Your task to perform on an android device: show emergency info Image 0: 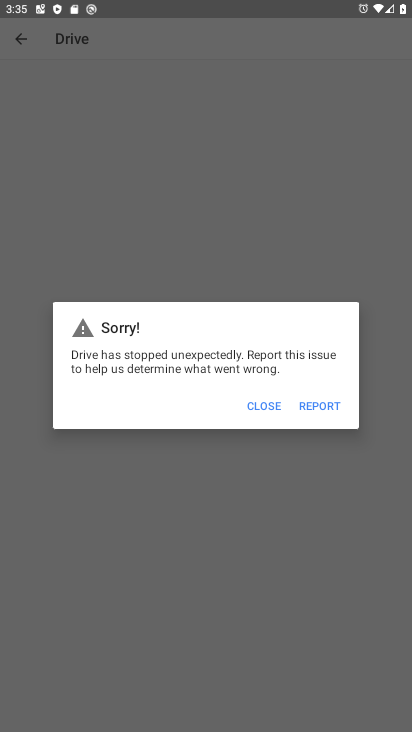
Step 0: press home button
Your task to perform on an android device: show emergency info Image 1: 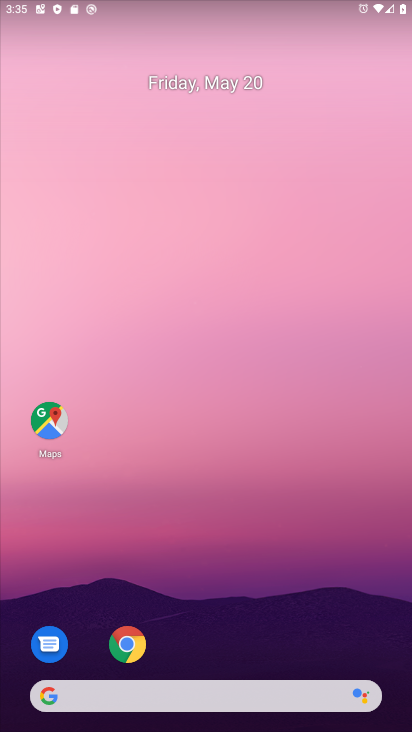
Step 1: drag from (257, 641) to (187, 63)
Your task to perform on an android device: show emergency info Image 2: 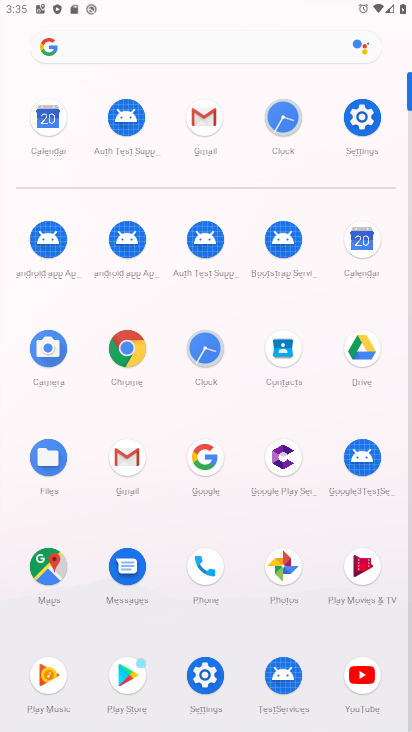
Step 2: click (345, 147)
Your task to perform on an android device: show emergency info Image 3: 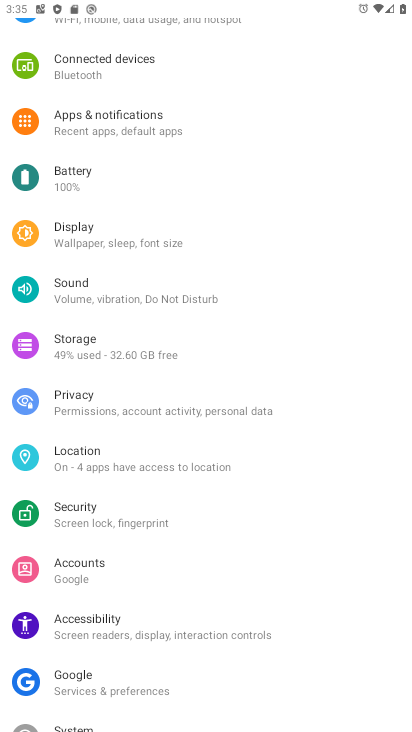
Step 3: drag from (173, 645) to (161, 166)
Your task to perform on an android device: show emergency info Image 4: 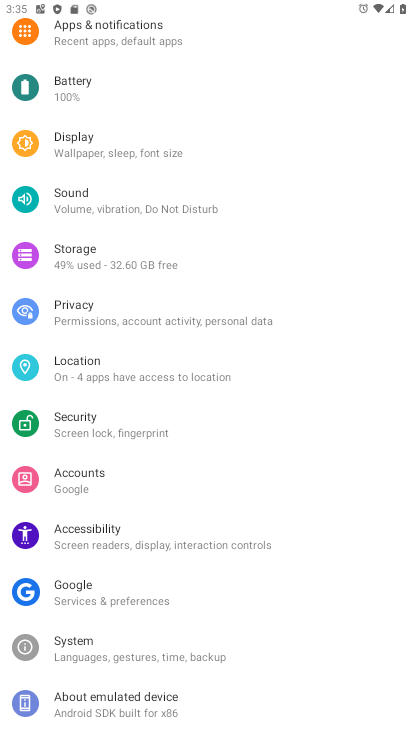
Step 4: click (173, 718)
Your task to perform on an android device: show emergency info Image 5: 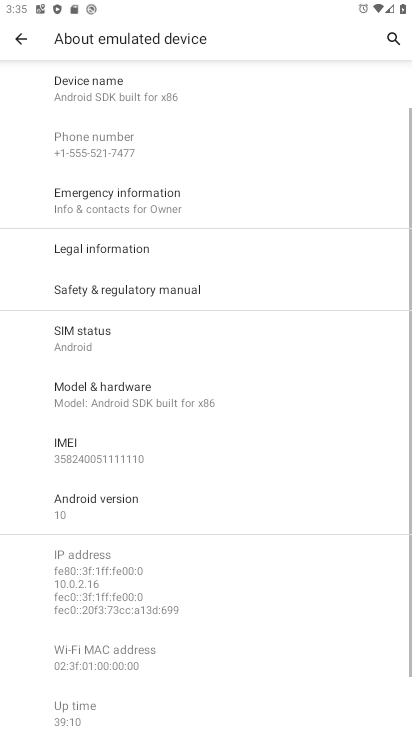
Step 5: drag from (193, 595) to (234, 241)
Your task to perform on an android device: show emergency info Image 6: 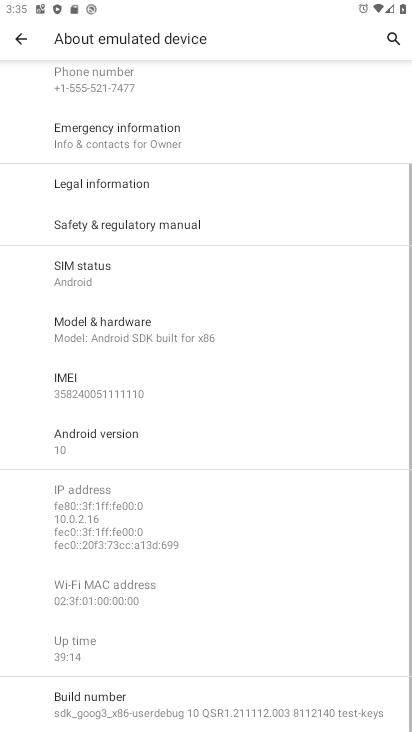
Step 6: click (120, 155)
Your task to perform on an android device: show emergency info Image 7: 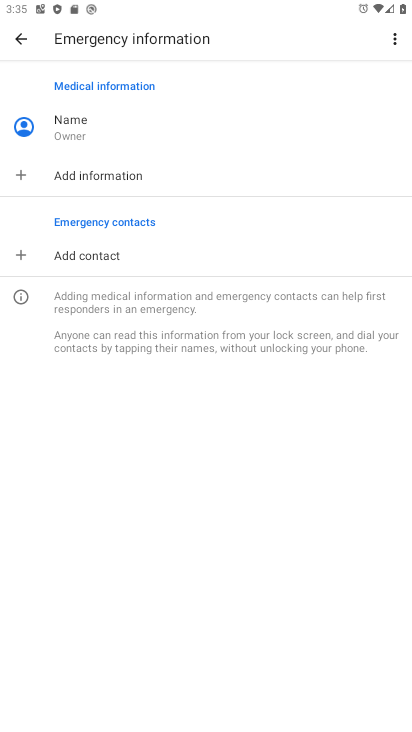
Step 7: task complete